Your task to perform on an android device: Set the phone to "Do not disturb". Image 0: 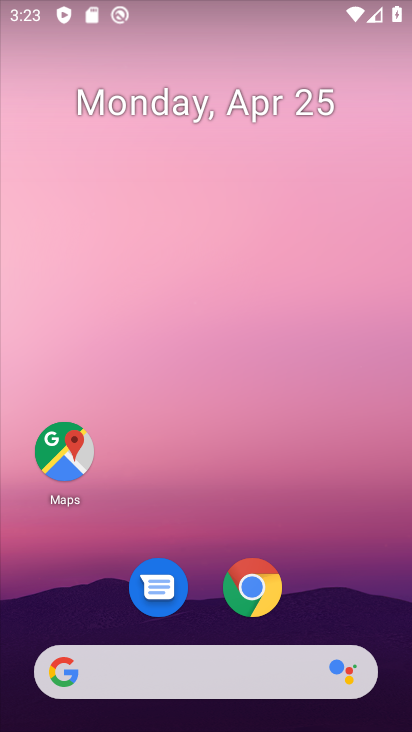
Step 0: click (207, 122)
Your task to perform on an android device: Set the phone to "Do not disturb". Image 1: 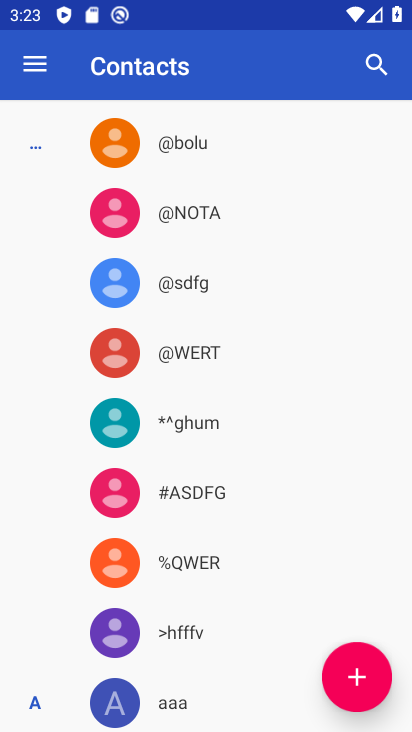
Step 1: press back button
Your task to perform on an android device: Set the phone to "Do not disturb". Image 2: 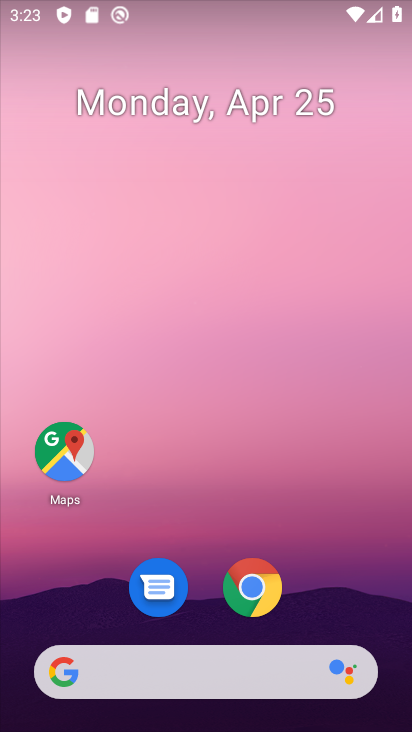
Step 2: drag from (101, 638) to (166, 145)
Your task to perform on an android device: Set the phone to "Do not disturb". Image 3: 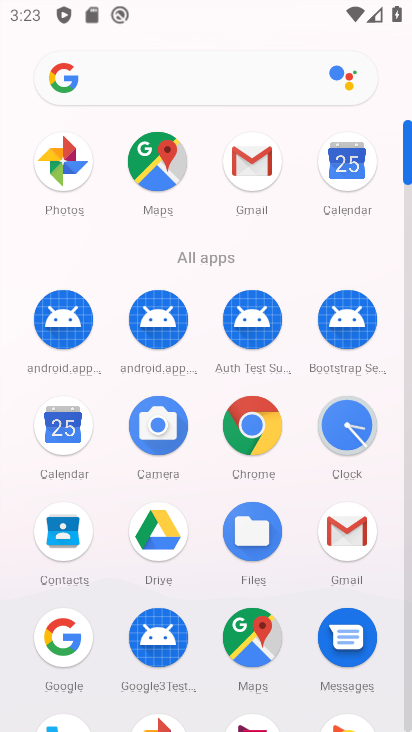
Step 3: drag from (204, 655) to (240, 325)
Your task to perform on an android device: Set the phone to "Do not disturb". Image 4: 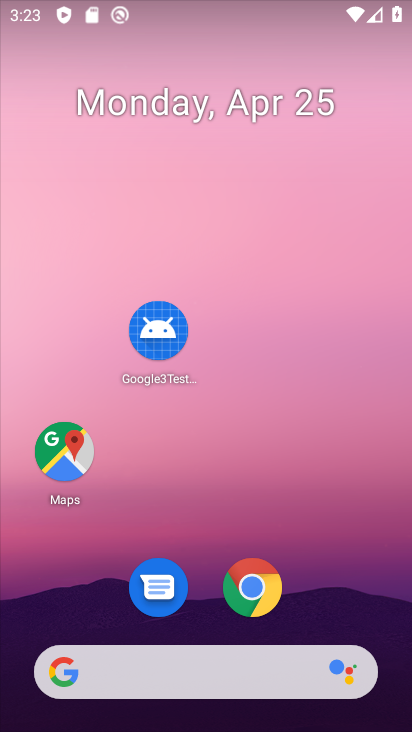
Step 4: drag from (299, 648) to (376, 96)
Your task to perform on an android device: Set the phone to "Do not disturb". Image 5: 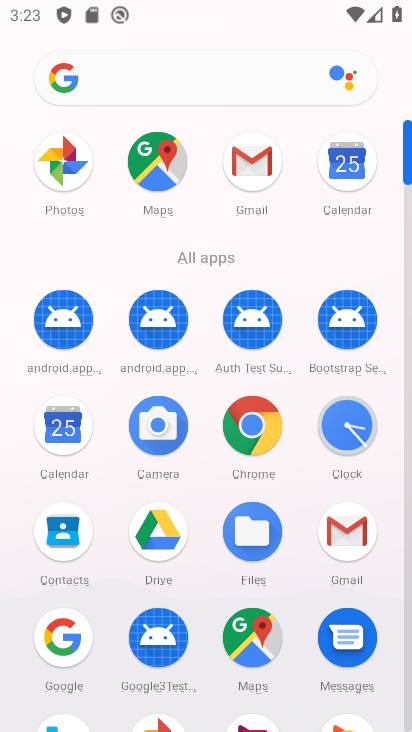
Step 5: drag from (364, 594) to (411, 225)
Your task to perform on an android device: Set the phone to "Do not disturb". Image 6: 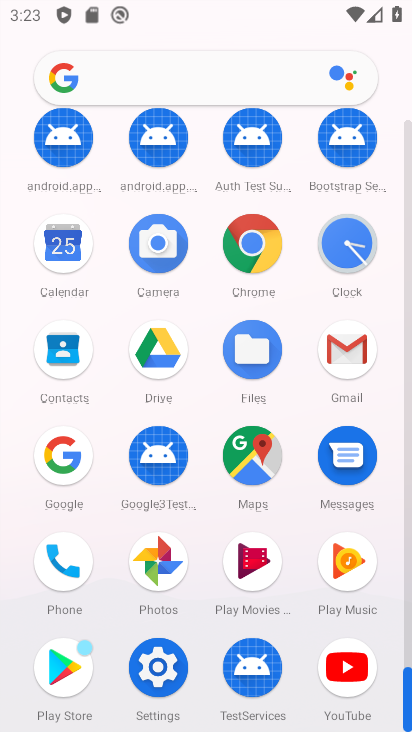
Step 6: click (159, 669)
Your task to perform on an android device: Set the phone to "Do not disturb". Image 7: 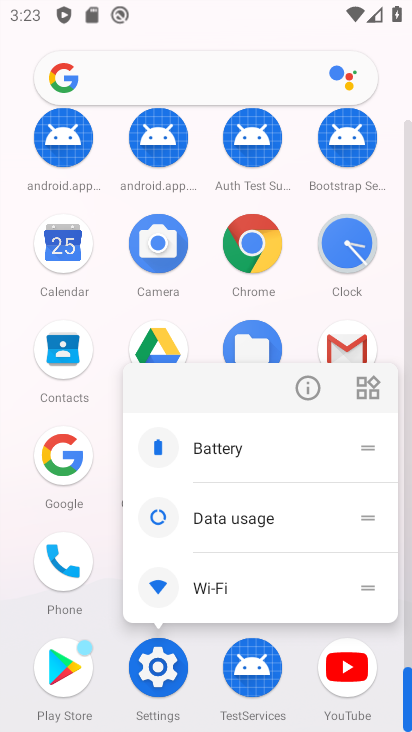
Step 7: click (159, 670)
Your task to perform on an android device: Set the phone to "Do not disturb". Image 8: 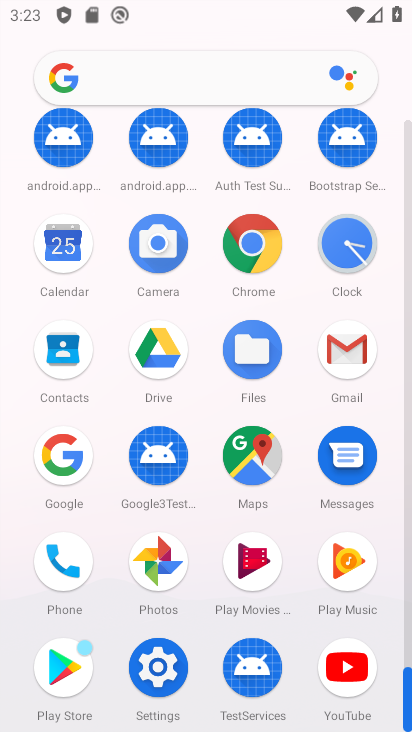
Step 8: click (157, 670)
Your task to perform on an android device: Set the phone to "Do not disturb". Image 9: 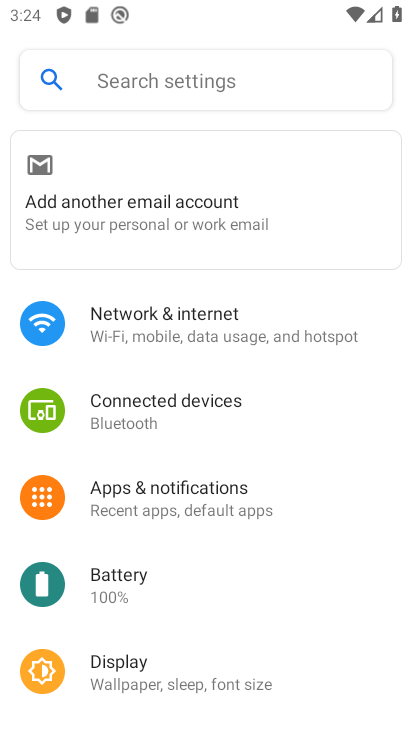
Step 9: click (234, 513)
Your task to perform on an android device: Set the phone to "Do not disturb". Image 10: 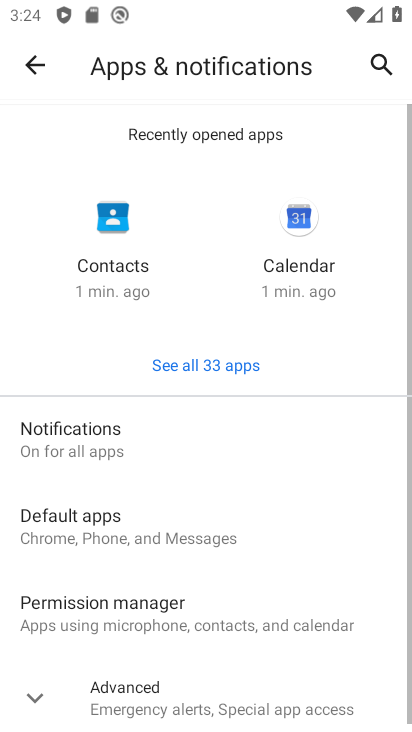
Step 10: click (193, 454)
Your task to perform on an android device: Set the phone to "Do not disturb". Image 11: 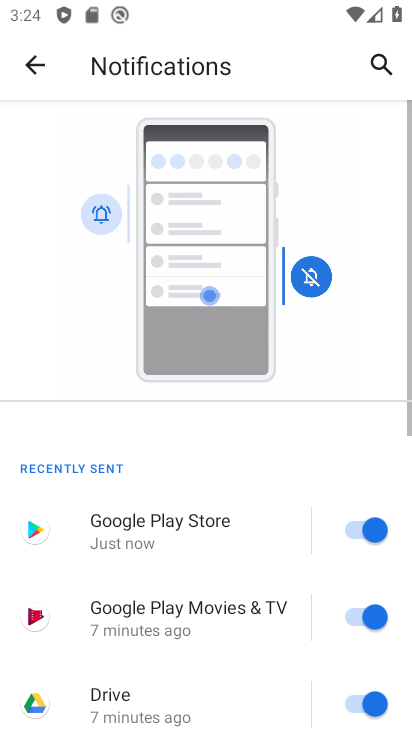
Step 11: drag from (175, 708) to (291, 81)
Your task to perform on an android device: Set the phone to "Do not disturb". Image 12: 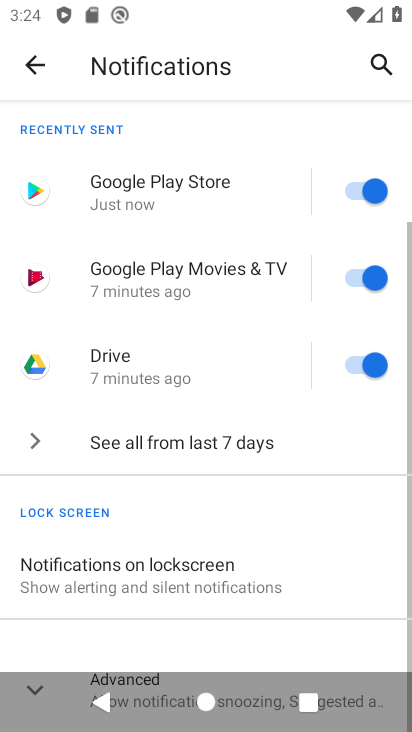
Step 12: drag from (182, 440) to (204, 341)
Your task to perform on an android device: Set the phone to "Do not disturb". Image 13: 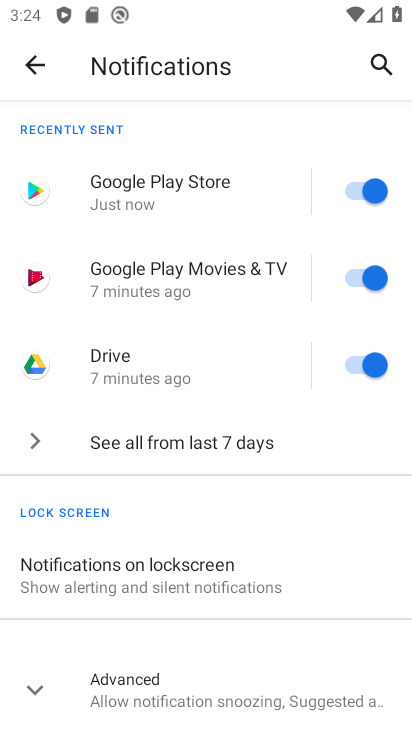
Step 13: click (180, 664)
Your task to perform on an android device: Set the phone to "Do not disturb". Image 14: 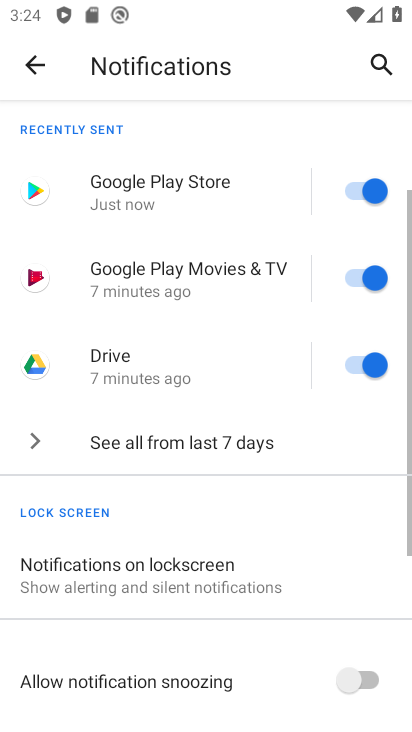
Step 14: drag from (165, 611) to (263, 68)
Your task to perform on an android device: Set the phone to "Do not disturb". Image 15: 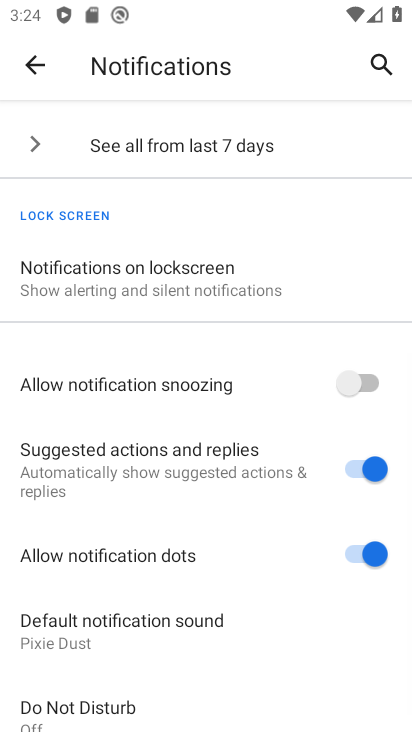
Step 15: drag from (143, 690) to (208, 392)
Your task to perform on an android device: Set the phone to "Do not disturb". Image 16: 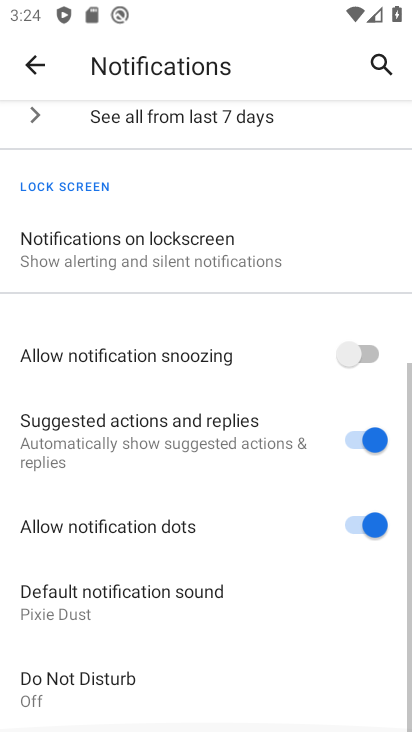
Step 16: click (148, 684)
Your task to perform on an android device: Set the phone to "Do not disturb". Image 17: 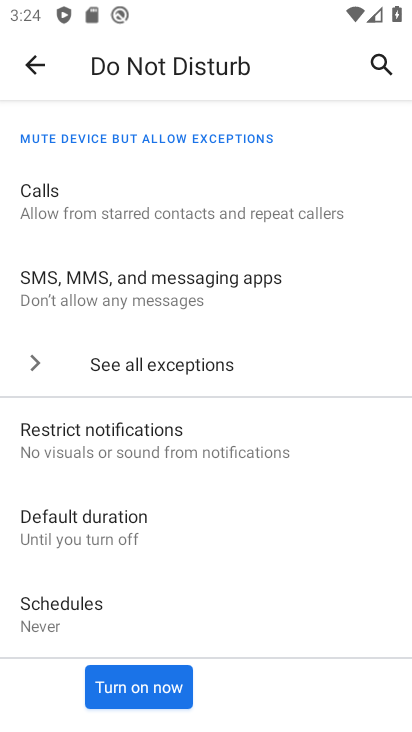
Step 17: click (159, 688)
Your task to perform on an android device: Set the phone to "Do not disturb". Image 18: 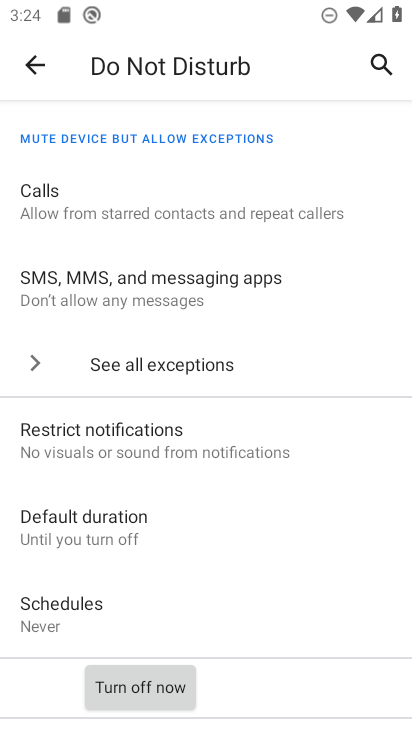
Step 18: task complete